Your task to perform on an android device: set the stopwatch Image 0: 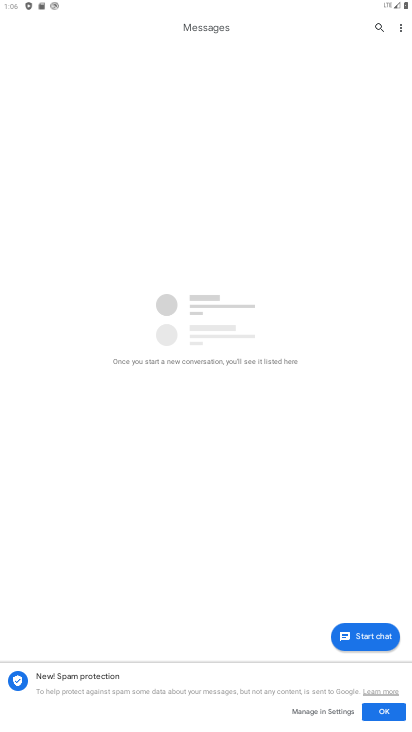
Step 0: press home button
Your task to perform on an android device: set the stopwatch Image 1: 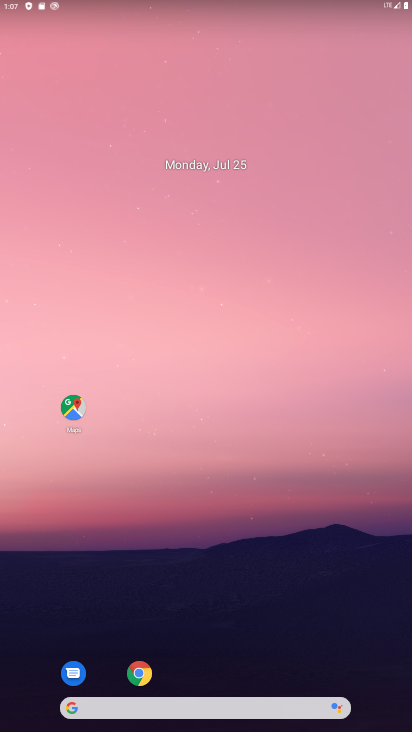
Step 1: drag from (371, 685) to (339, 202)
Your task to perform on an android device: set the stopwatch Image 2: 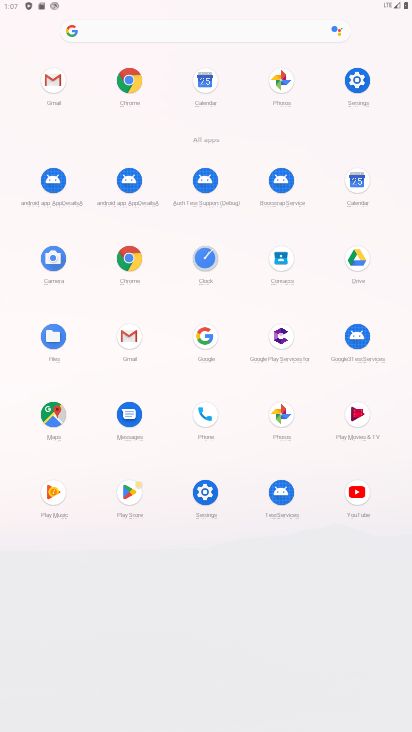
Step 2: click (205, 258)
Your task to perform on an android device: set the stopwatch Image 3: 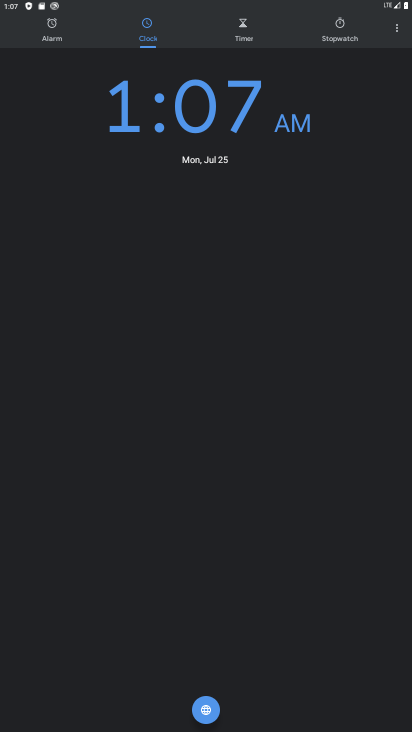
Step 3: click (338, 23)
Your task to perform on an android device: set the stopwatch Image 4: 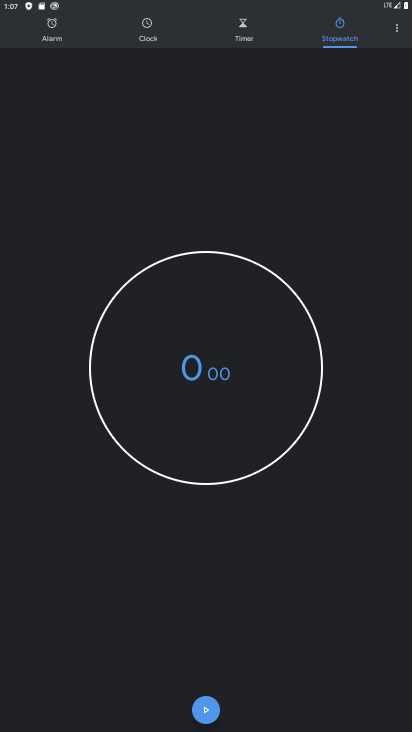
Step 4: task complete